Your task to perform on an android device: Open CNN.com Image 0: 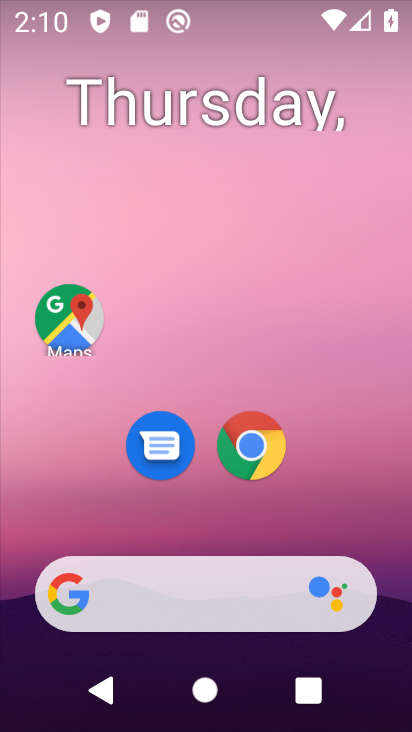
Step 0: click (261, 446)
Your task to perform on an android device: Open CNN.com Image 1: 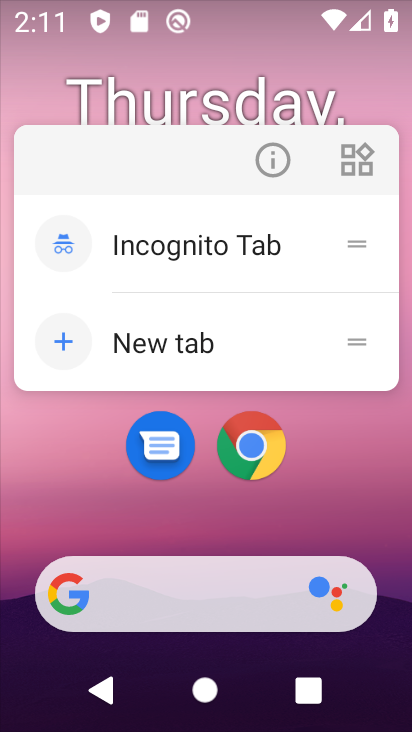
Step 1: click (225, 447)
Your task to perform on an android device: Open CNN.com Image 2: 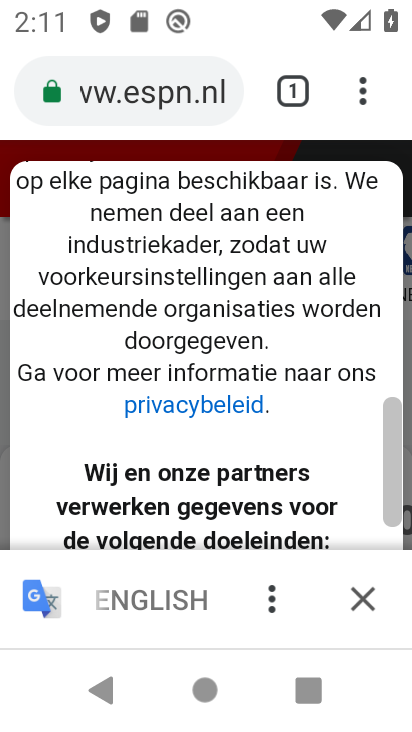
Step 2: click (174, 68)
Your task to perform on an android device: Open CNN.com Image 3: 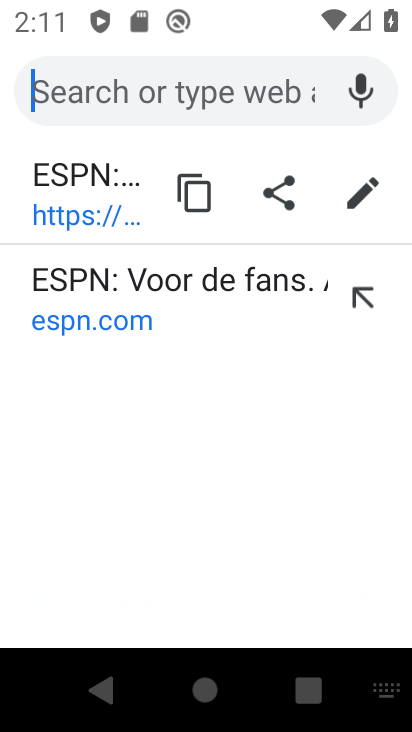
Step 3: type "CNN.com"
Your task to perform on an android device: Open CNN.com Image 4: 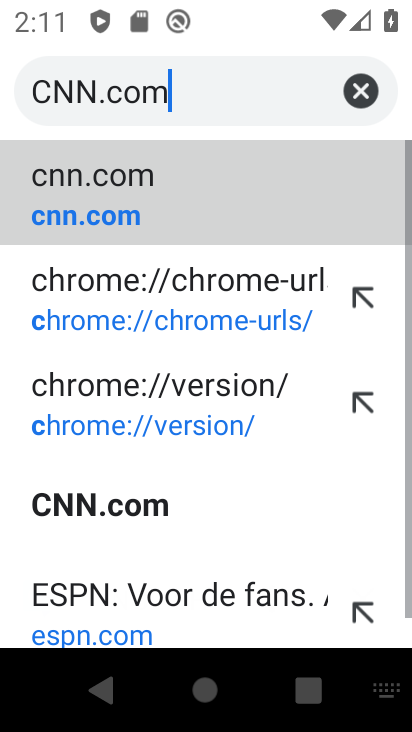
Step 4: type ""
Your task to perform on an android device: Open CNN.com Image 5: 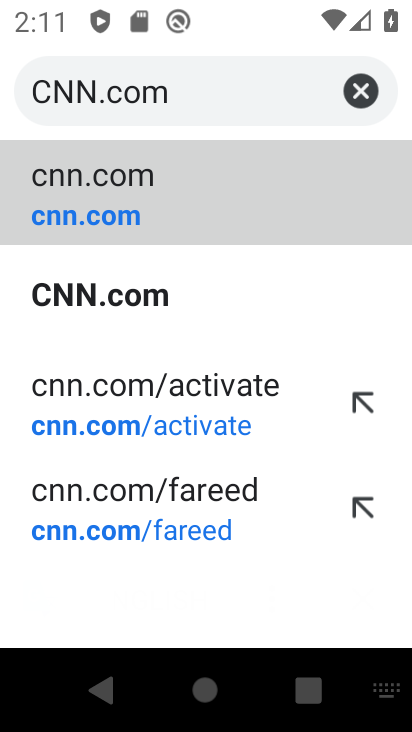
Step 5: click (136, 303)
Your task to perform on an android device: Open CNN.com Image 6: 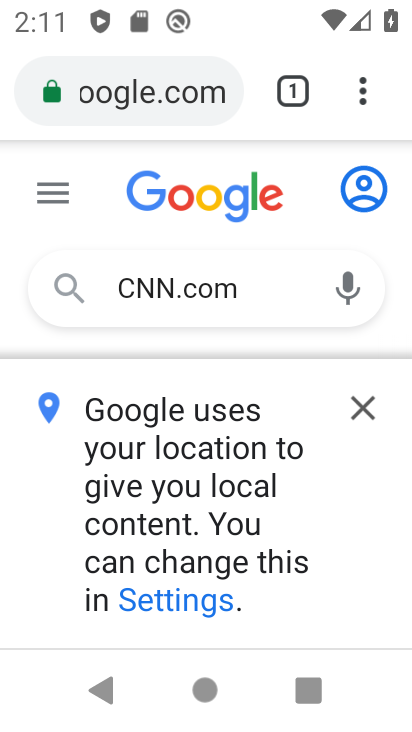
Step 6: click (359, 413)
Your task to perform on an android device: Open CNN.com Image 7: 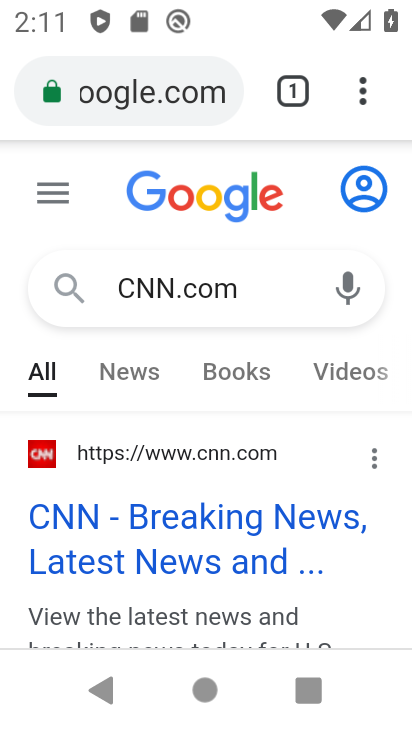
Step 7: click (176, 538)
Your task to perform on an android device: Open CNN.com Image 8: 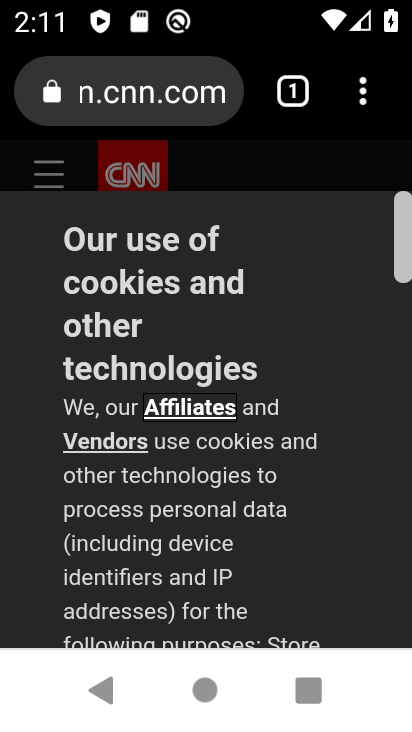
Step 8: task complete